Your task to perform on an android device: turn off wifi Image 0: 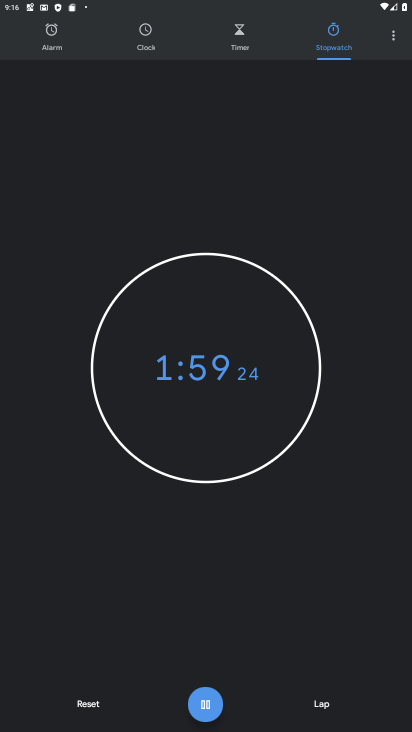
Step 0: press home button
Your task to perform on an android device: turn off wifi Image 1: 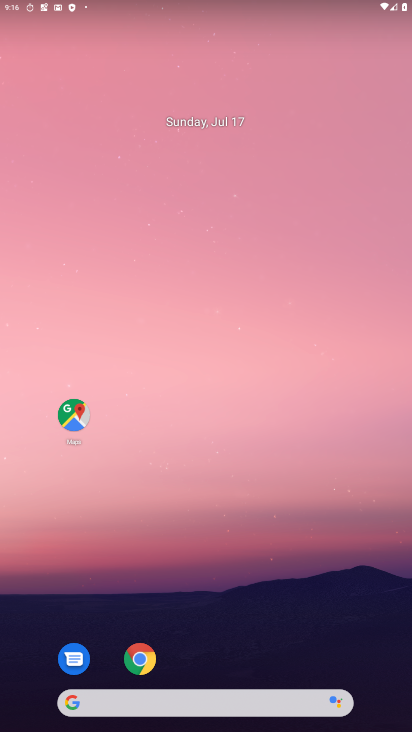
Step 1: drag from (247, 627) to (176, 78)
Your task to perform on an android device: turn off wifi Image 2: 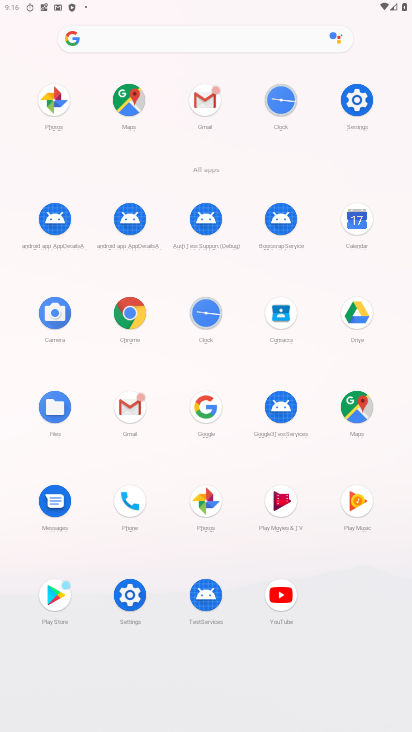
Step 2: click (361, 114)
Your task to perform on an android device: turn off wifi Image 3: 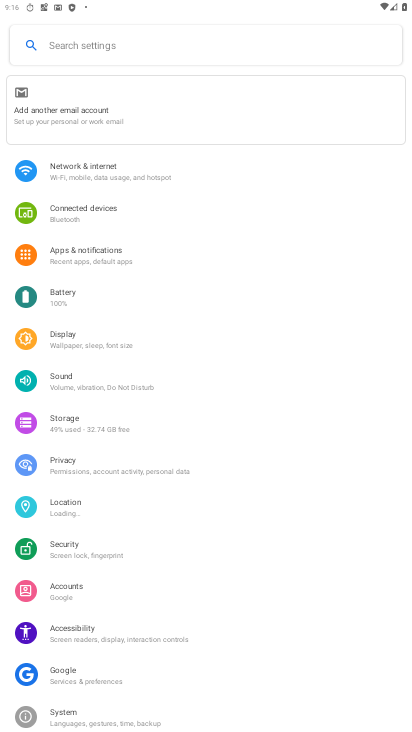
Step 3: drag from (131, 106) to (173, 169)
Your task to perform on an android device: turn off wifi Image 4: 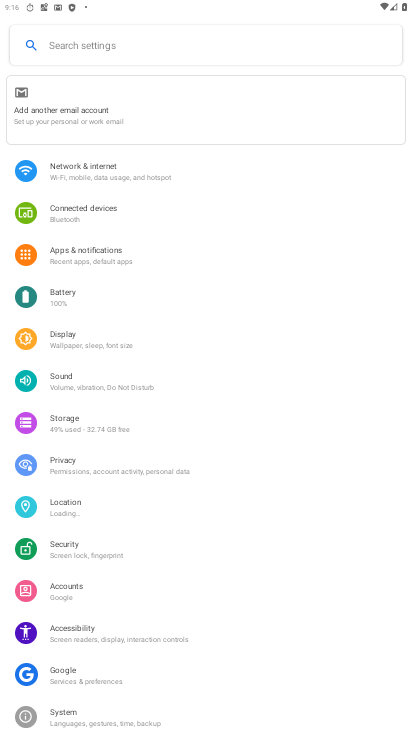
Step 4: click (173, 171)
Your task to perform on an android device: turn off wifi Image 5: 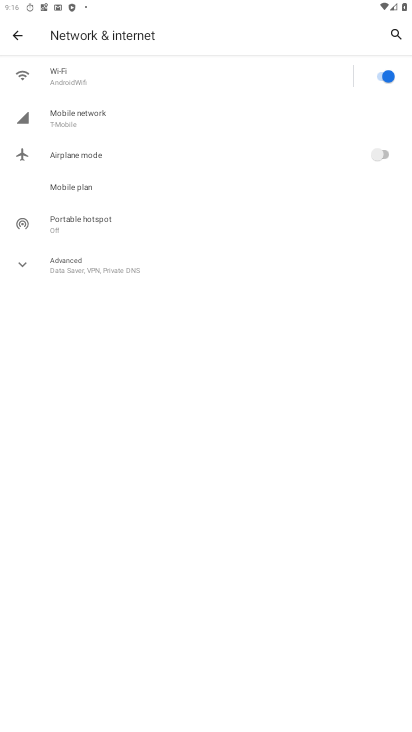
Step 5: click (382, 82)
Your task to perform on an android device: turn off wifi Image 6: 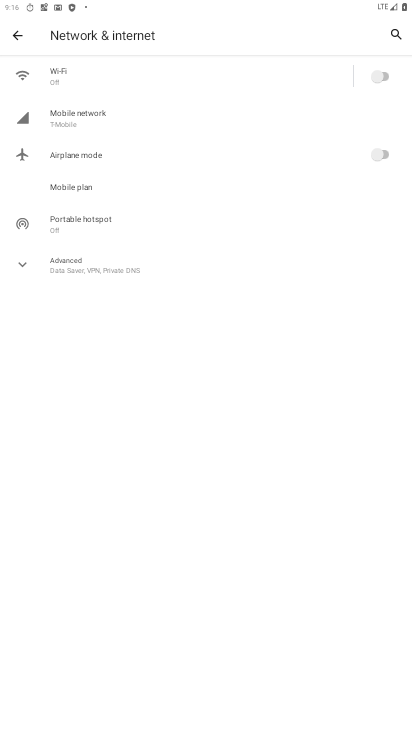
Step 6: task complete